Your task to perform on an android device: make emails show in primary in the gmail app Image 0: 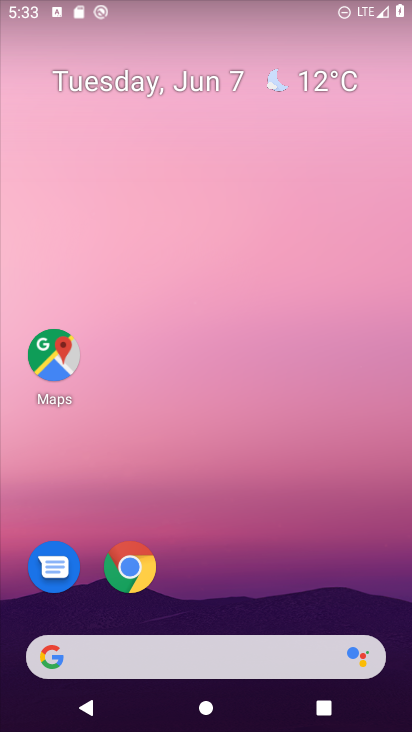
Step 0: drag from (244, 649) to (383, 5)
Your task to perform on an android device: make emails show in primary in the gmail app Image 1: 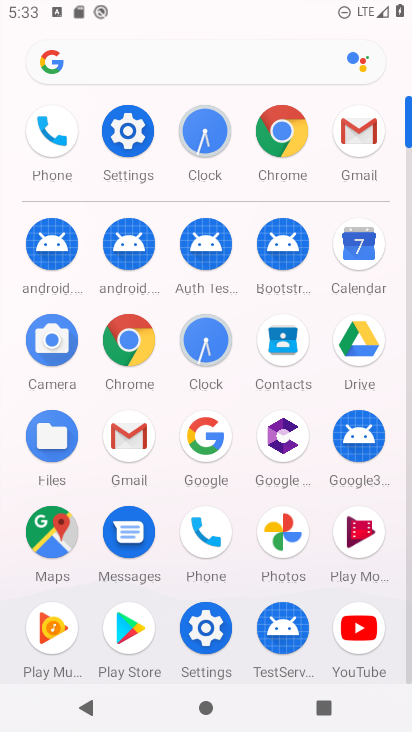
Step 1: click (128, 429)
Your task to perform on an android device: make emails show in primary in the gmail app Image 2: 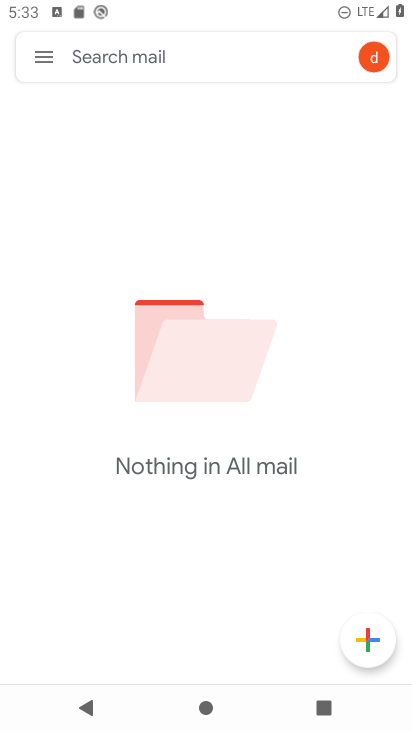
Step 2: click (41, 43)
Your task to perform on an android device: make emails show in primary in the gmail app Image 3: 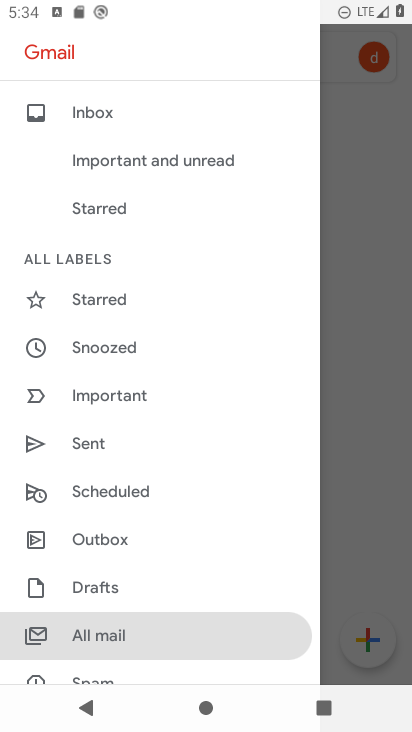
Step 3: drag from (119, 628) to (138, 20)
Your task to perform on an android device: make emails show in primary in the gmail app Image 4: 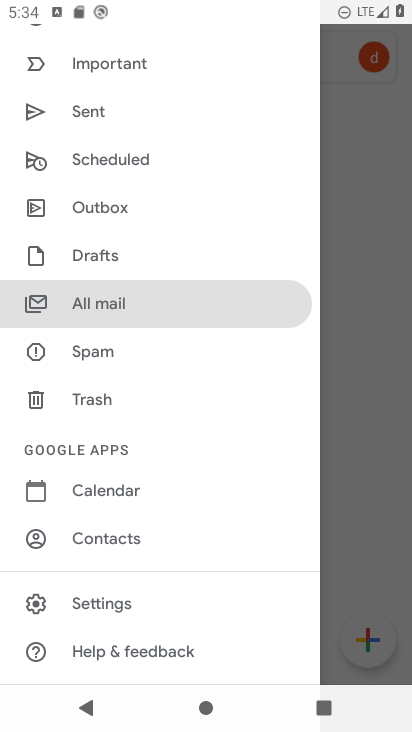
Step 4: click (105, 607)
Your task to perform on an android device: make emails show in primary in the gmail app Image 5: 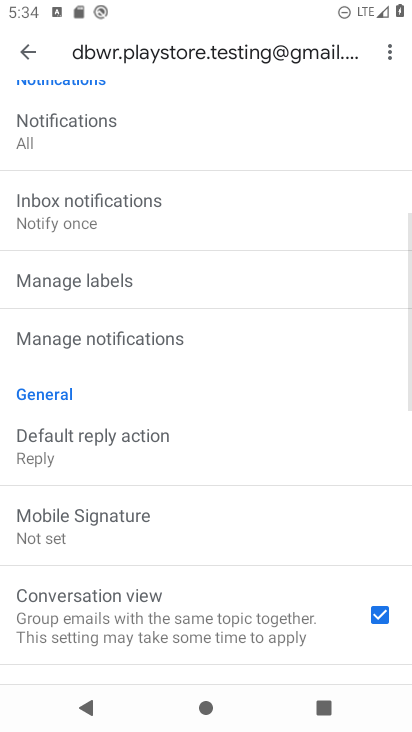
Step 5: drag from (119, 264) to (208, 688)
Your task to perform on an android device: make emails show in primary in the gmail app Image 6: 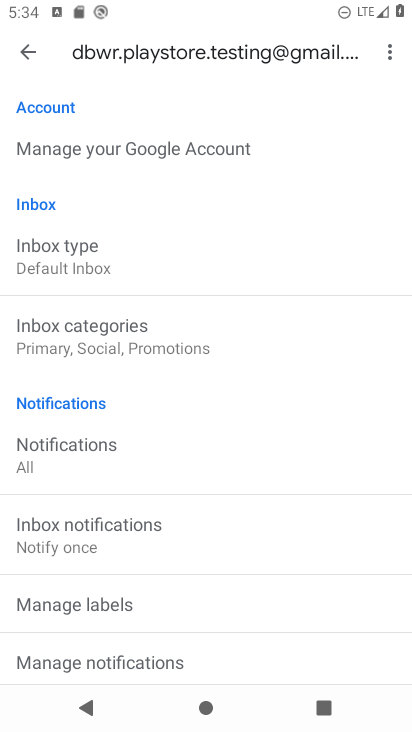
Step 6: click (94, 271)
Your task to perform on an android device: make emails show in primary in the gmail app Image 7: 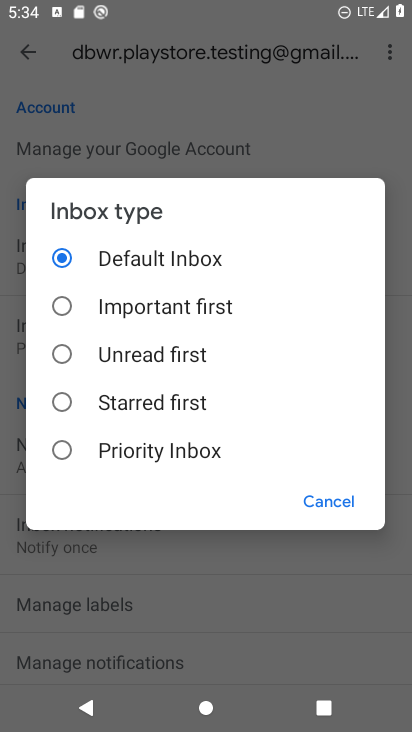
Step 7: click (129, 449)
Your task to perform on an android device: make emails show in primary in the gmail app Image 8: 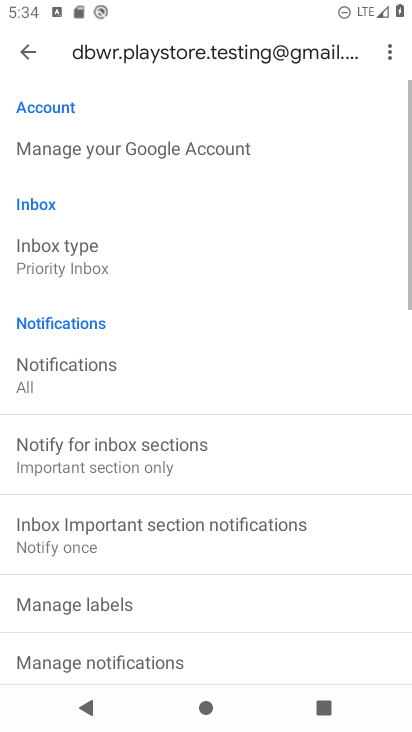
Step 8: click (84, 270)
Your task to perform on an android device: make emails show in primary in the gmail app Image 9: 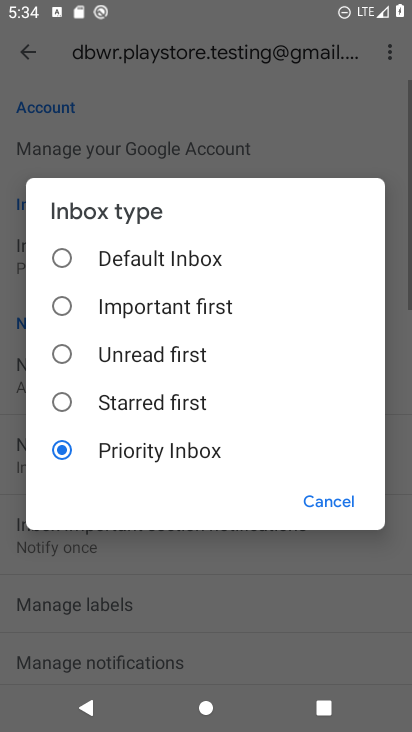
Step 9: click (80, 260)
Your task to perform on an android device: make emails show in primary in the gmail app Image 10: 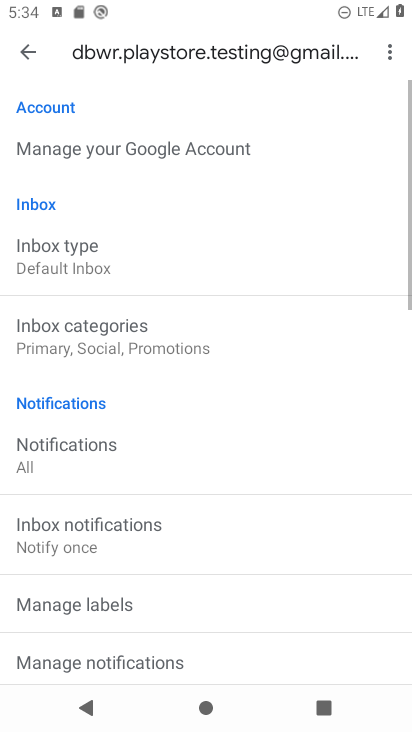
Step 10: task complete